Your task to perform on an android device: Is it going to rain tomorrow? Image 0: 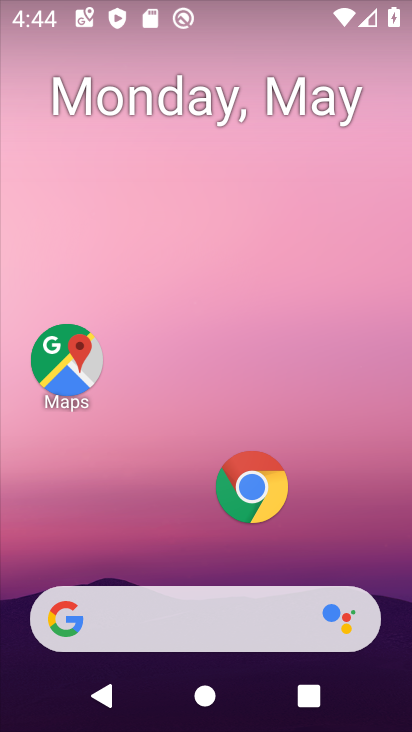
Step 0: click (205, 637)
Your task to perform on an android device: Is it going to rain tomorrow? Image 1: 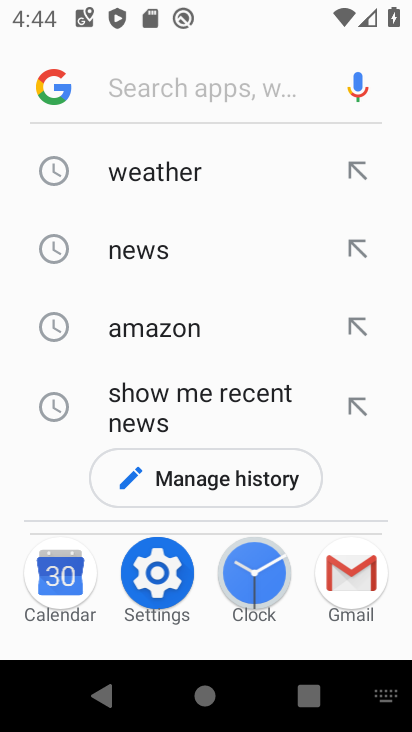
Step 1: click (173, 174)
Your task to perform on an android device: Is it going to rain tomorrow? Image 2: 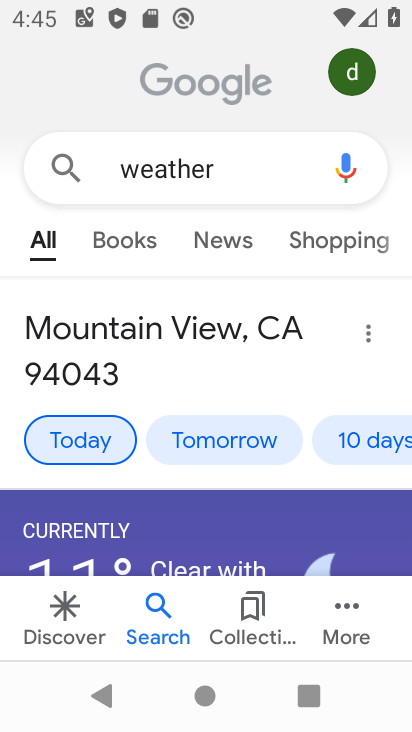
Step 2: click (238, 437)
Your task to perform on an android device: Is it going to rain tomorrow? Image 3: 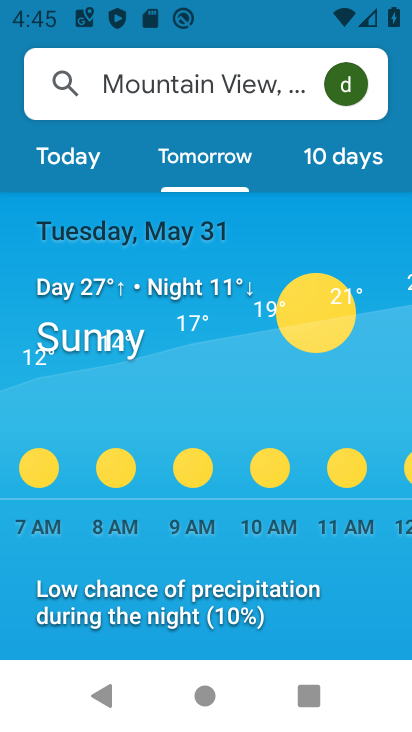
Step 3: task complete